Your task to perform on an android device: allow notifications from all sites in the chrome app Image 0: 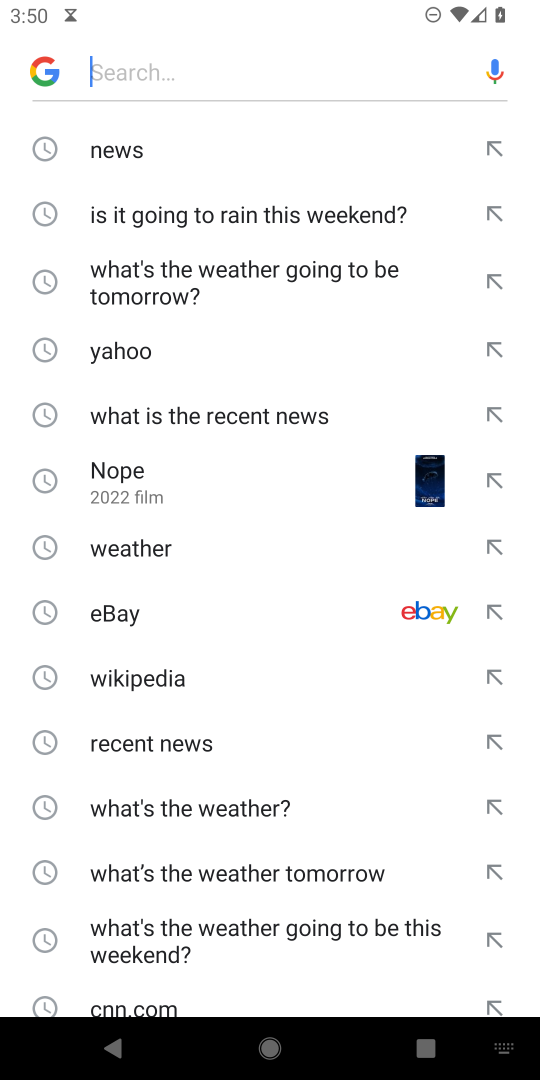
Step 0: press home button
Your task to perform on an android device: allow notifications from all sites in the chrome app Image 1: 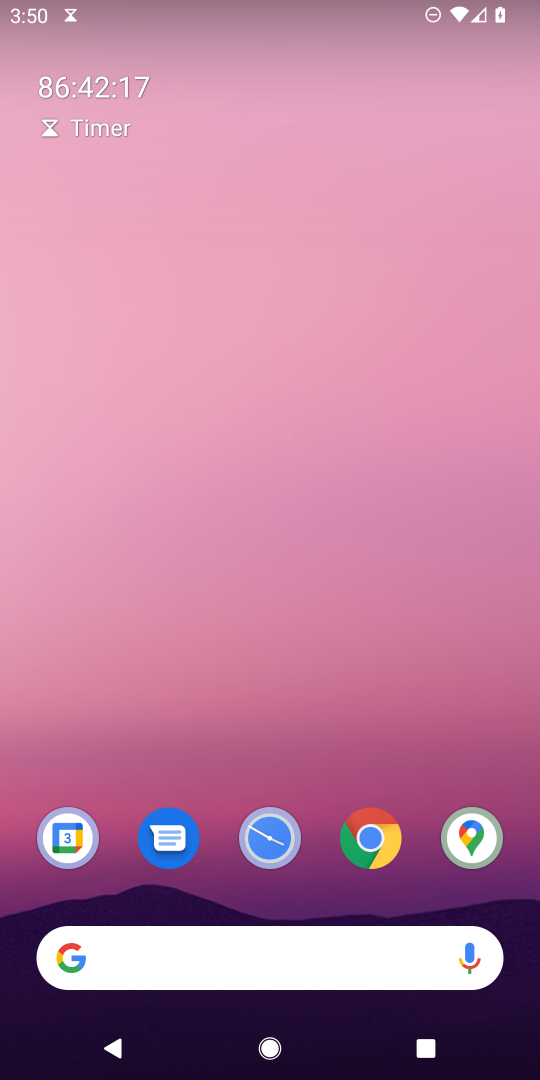
Step 1: click (356, 828)
Your task to perform on an android device: allow notifications from all sites in the chrome app Image 2: 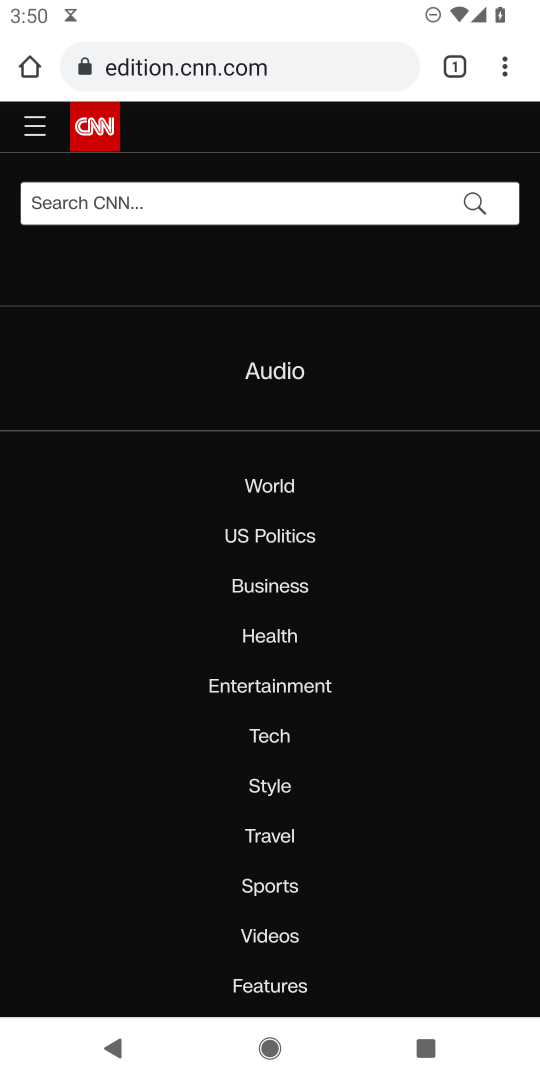
Step 2: click (496, 52)
Your task to perform on an android device: allow notifications from all sites in the chrome app Image 3: 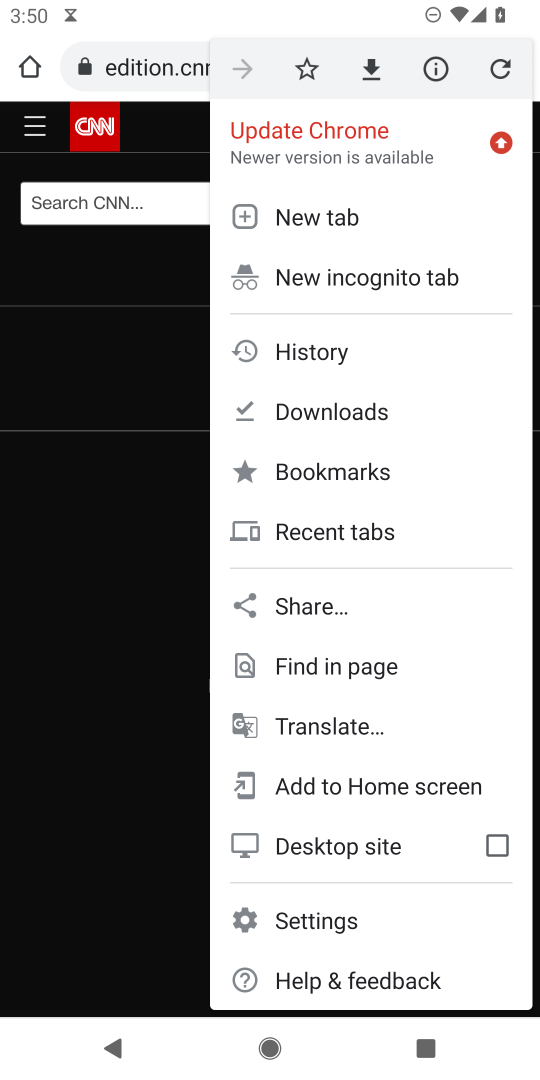
Step 3: click (373, 929)
Your task to perform on an android device: allow notifications from all sites in the chrome app Image 4: 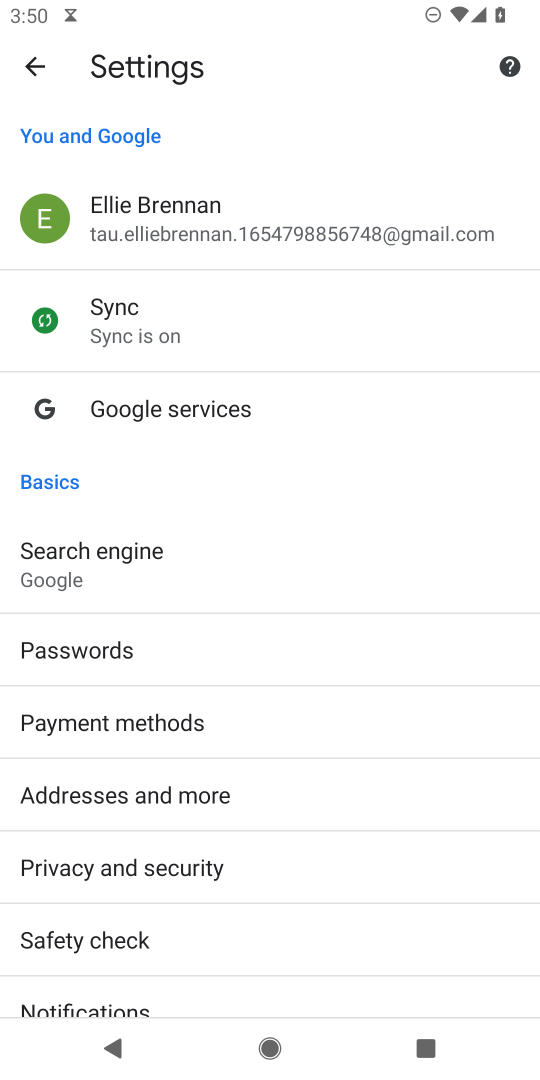
Step 4: drag from (384, 571) to (466, 601)
Your task to perform on an android device: allow notifications from all sites in the chrome app Image 5: 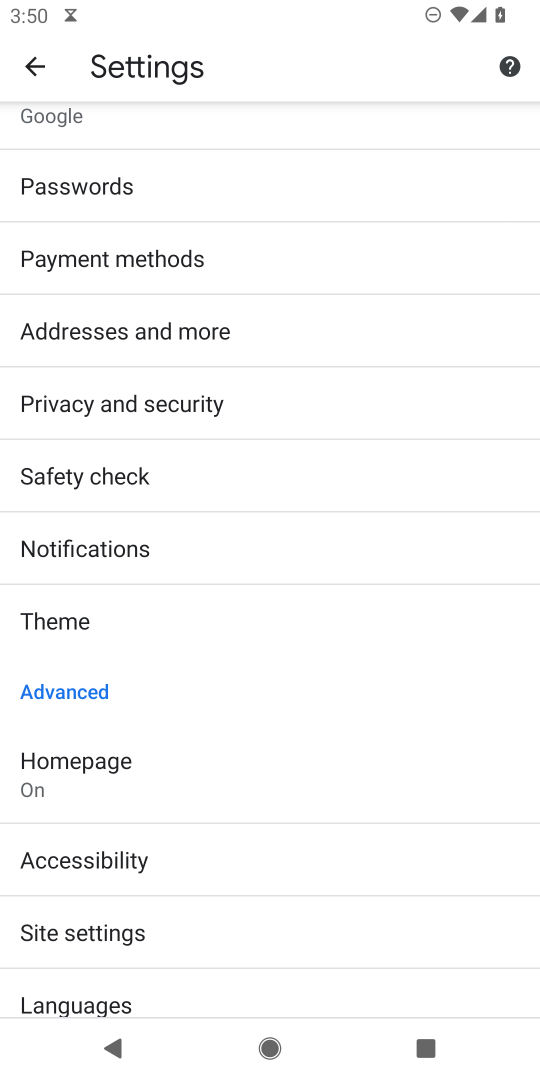
Step 5: click (352, 550)
Your task to perform on an android device: allow notifications from all sites in the chrome app Image 6: 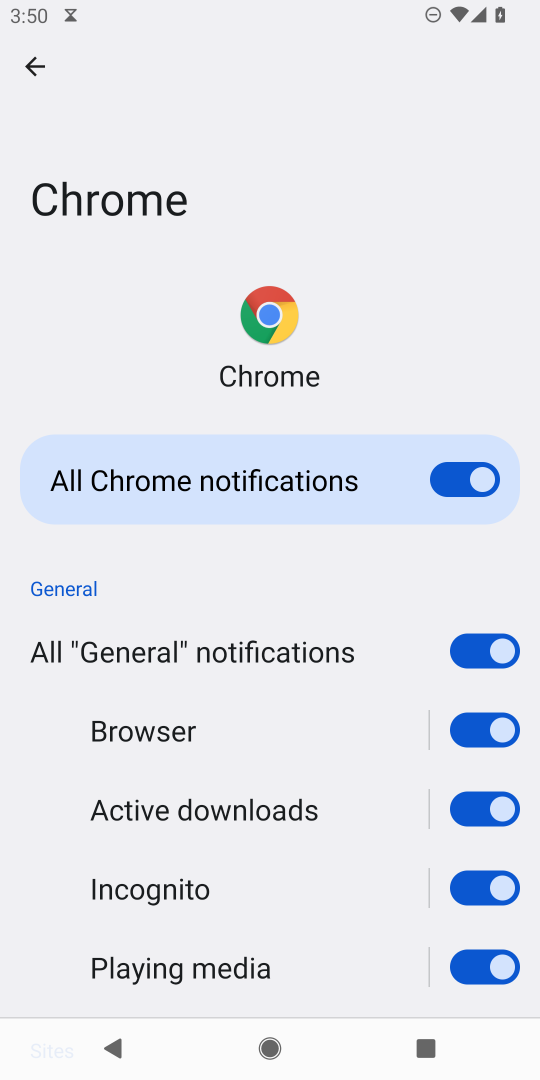
Step 6: task complete